Your task to perform on an android device: Search for Mexican restaurants on Maps Image 0: 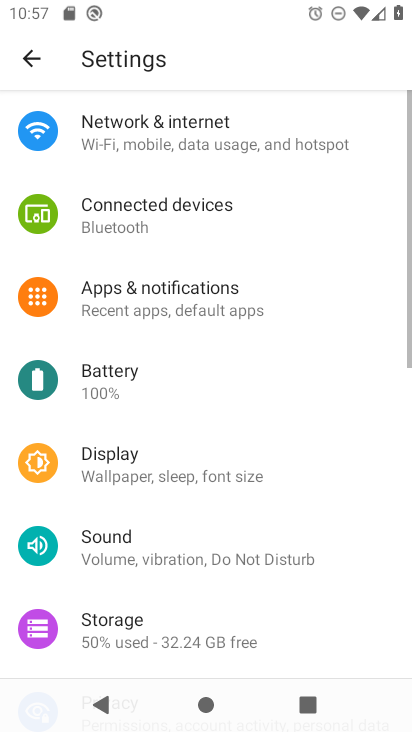
Step 0: press home button
Your task to perform on an android device: Search for Mexican restaurants on Maps Image 1: 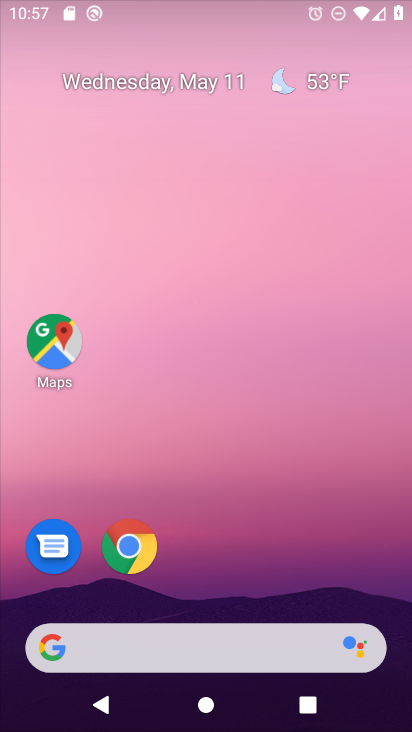
Step 1: drag from (391, 637) to (238, 52)
Your task to perform on an android device: Search for Mexican restaurants on Maps Image 2: 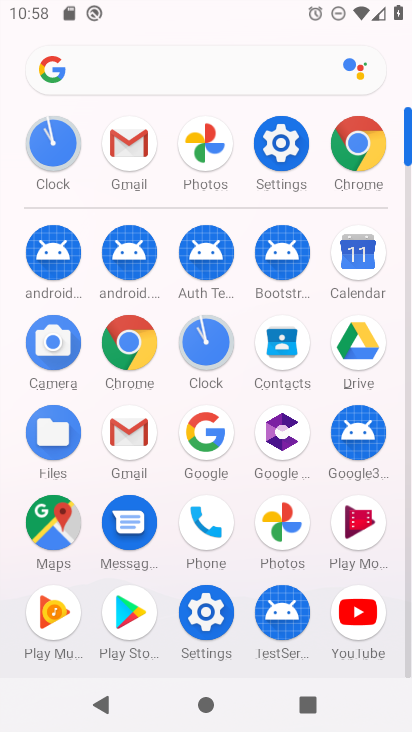
Step 2: click (66, 519)
Your task to perform on an android device: Search for Mexican restaurants on Maps Image 3: 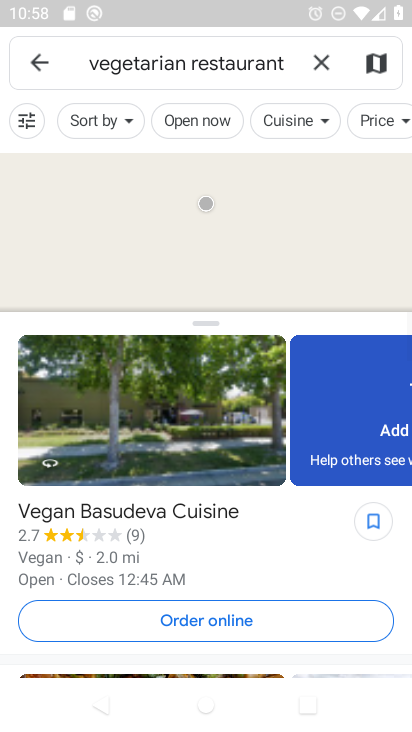
Step 3: click (331, 60)
Your task to perform on an android device: Search for Mexican restaurants on Maps Image 4: 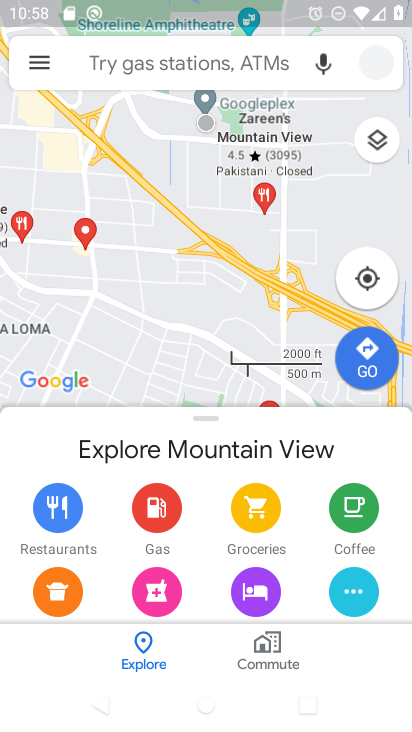
Step 4: click (107, 56)
Your task to perform on an android device: Search for Mexican restaurants on Maps Image 5: 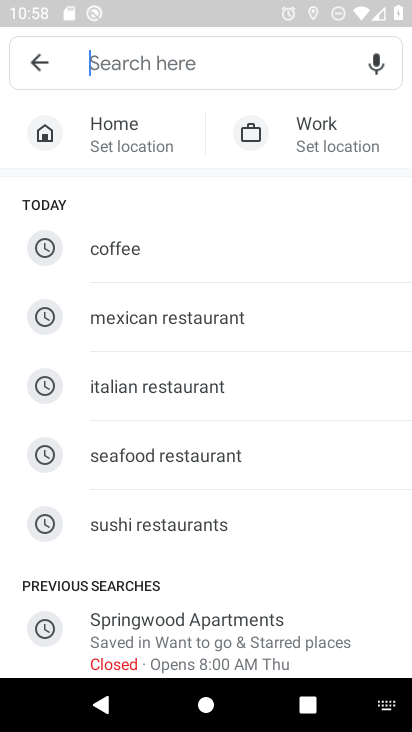
Step 5: click (189, 330)
Your task to perform on an android device: Search for Mexican restaurants on Maps Image 6: 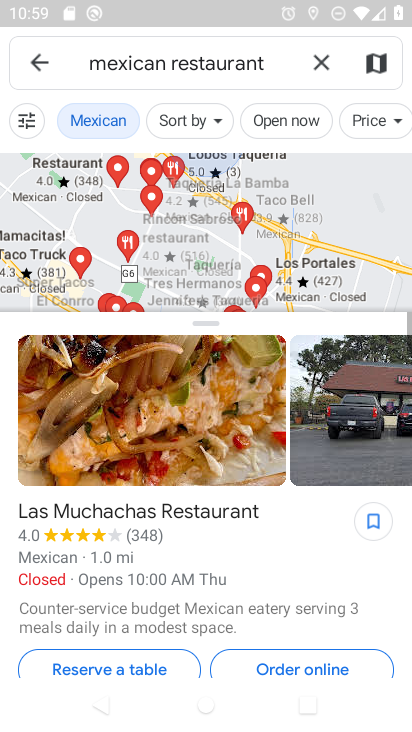
Step 6: task complete